Your task to perform on an android device: Do I have any events tomorrow? Image 0: 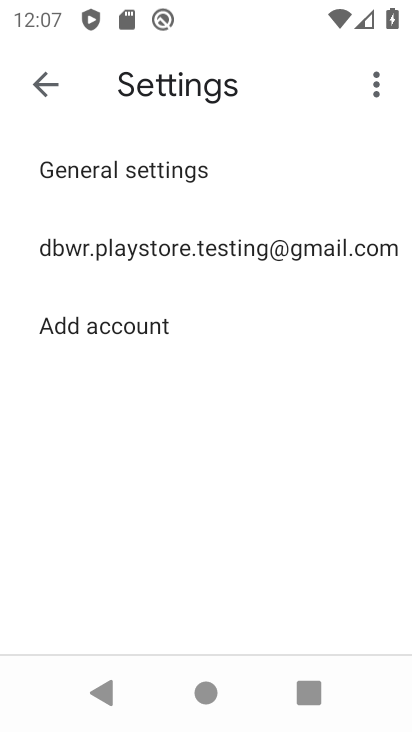
Step 0: press home button
Your task to perform on an android device: Do I have any events tomorrow? Image 1: 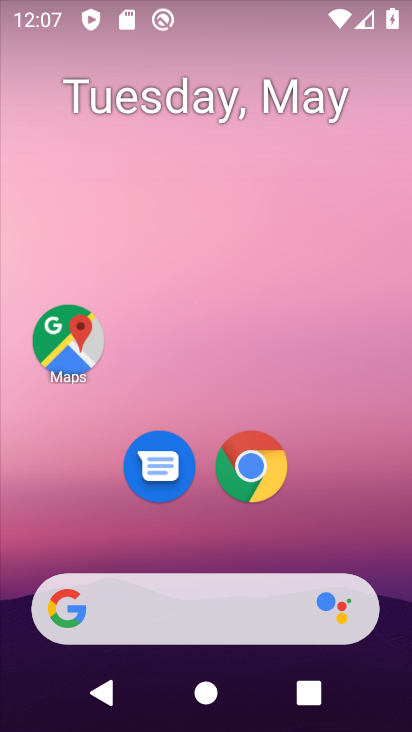
Step 1: drag from (368, 435) to (363, 265)
Your task to perform on an android device: Do I have any events tomorrow? Image 2: 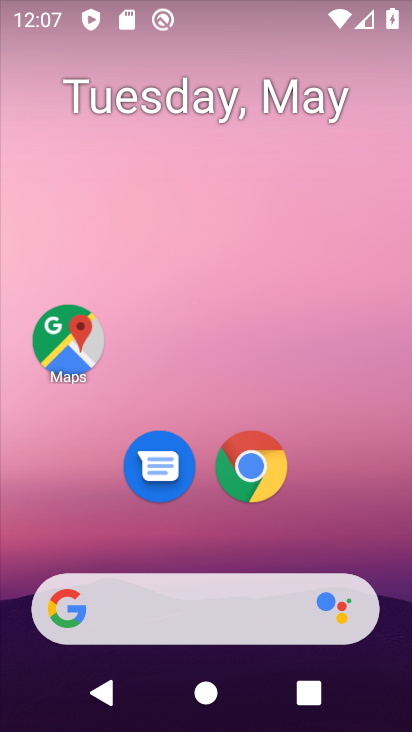
Step 2: drag from (396, 639) to (314, 265)
Your task to perform on an android device: Do I have any events tomorrow? Image 3: 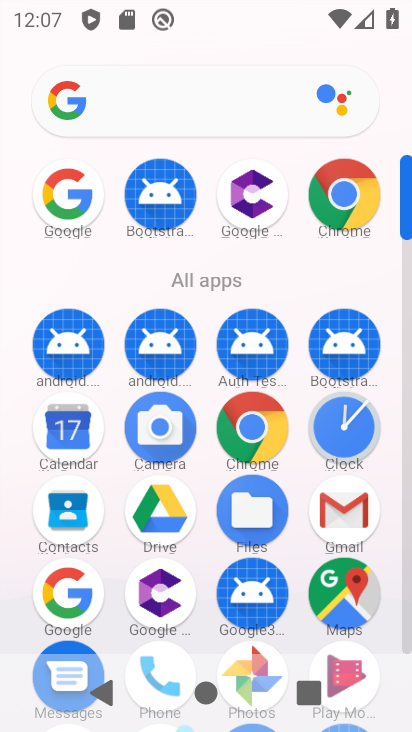
Step 3: click (68, 430)
Your task to perform on an android device: Do I have any events tomorrow? Image 4: 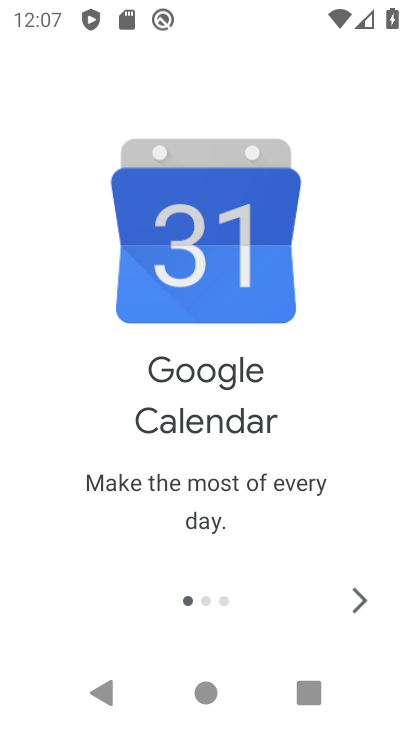
Step 4: click (362, 599)
Your task to perform on an android device: Do I have any events tomorrow? Image 5: 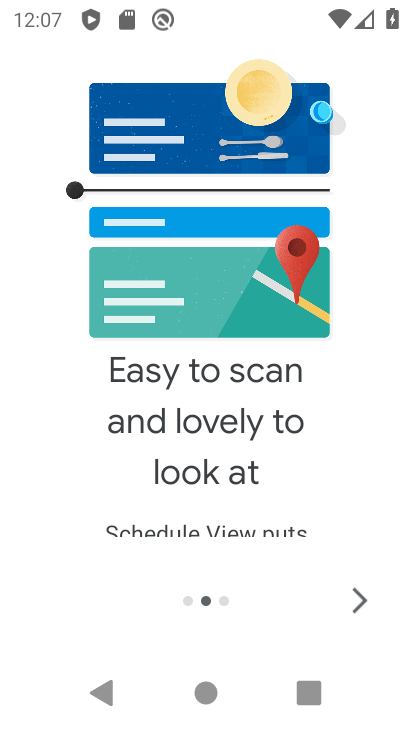
Step 5: click (362, 599)
Your task to perform on an android device: Do I have any events tomorrow? Image 6: 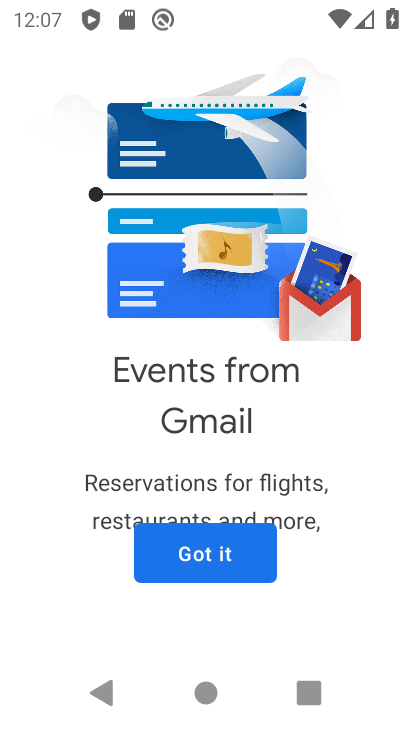
Step 6: click (142, 555)
Your task to perform on an android device: Do I have any events tomorrow? Image 7: 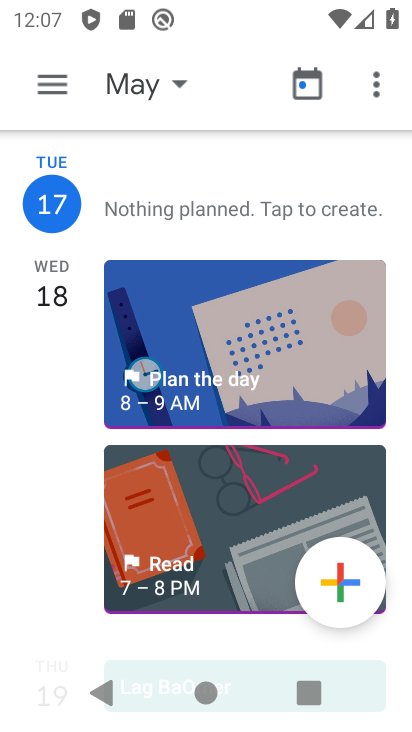
Step 7: click (46, 92)
Your task to perform on an android device: Do I have any events tomorrow? Image 8: 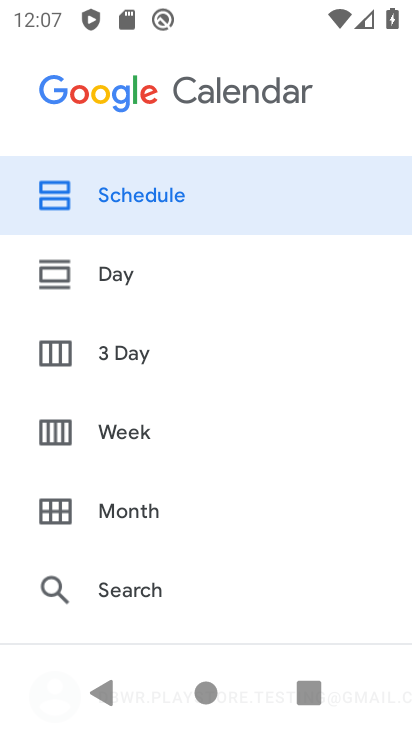
Step 8: drag from (237, 566) to (216, 308)
Your task to perform on an android device: Do I have any events tomorrow? Image 9: 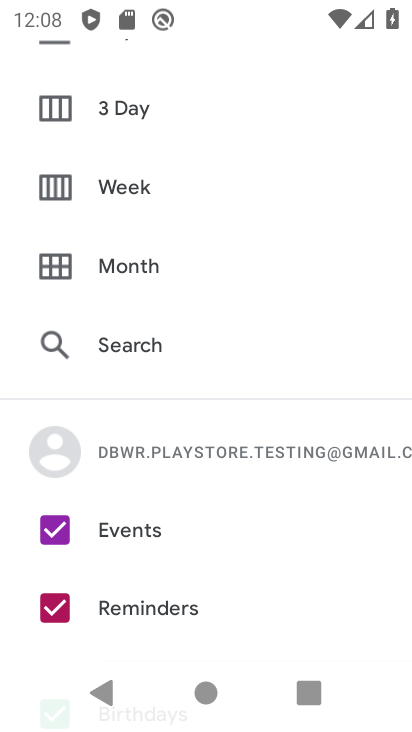
Step 9: click (57, 612)
Your task to perform on an android device: Do I have any events tomorrow? Image 10: 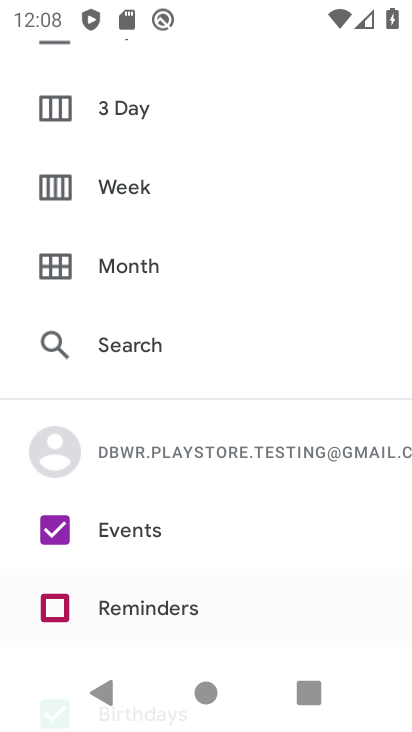
Step 10: drag from (261, 615) to (214, 397)
Your task to perform on an android device: Do I have any events tomorrow? Image 11: 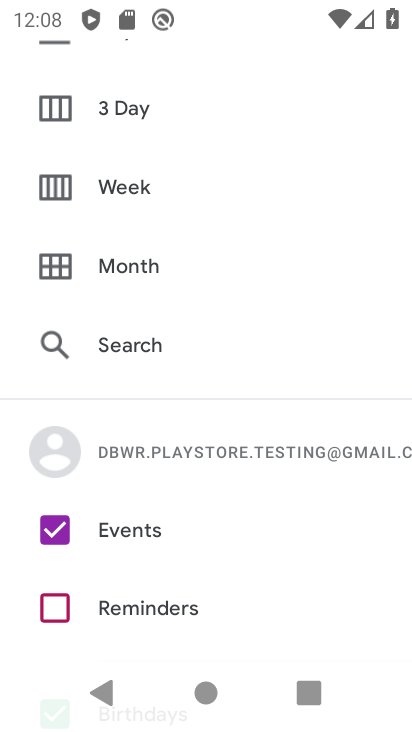
Step 11: drag from (261, 578) to (255, 340)
Your task to perform on an android device: Do I have any events tomorrow? Image 12: 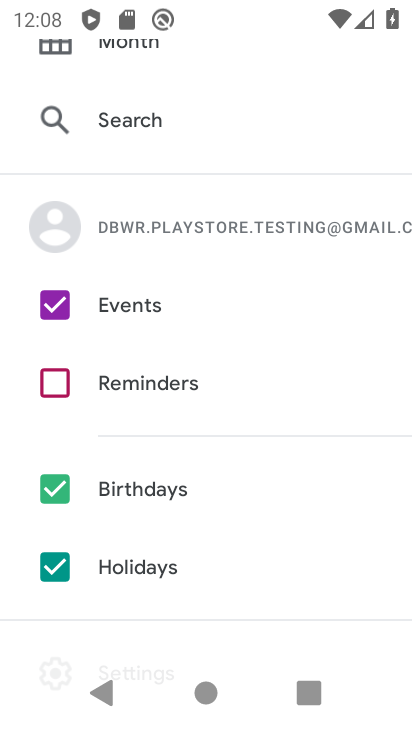
Step 12: click (50, 516)
Your task to perform on an android device: Do I have any events tomorrow? Image 13: 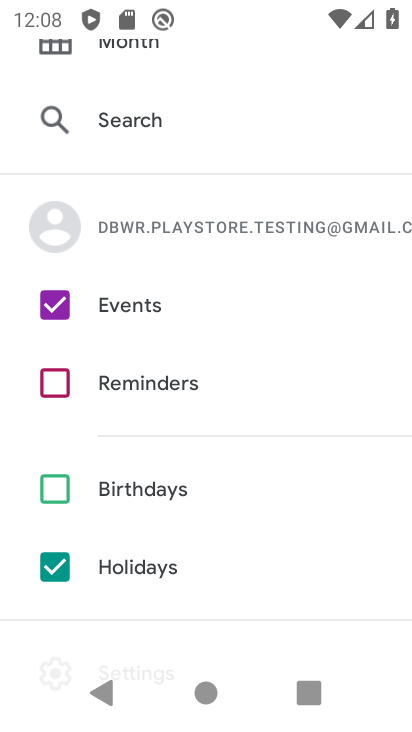
Step 13: click (53, 575)
Your task to perform on an android device: Do I have any events tomorrow? Image 14: 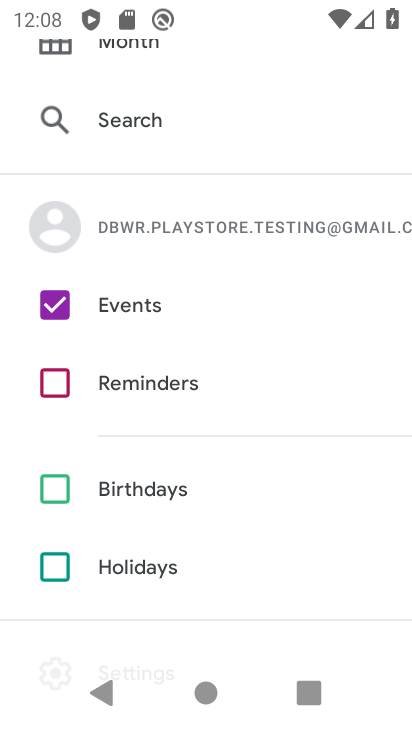
Step 14: task complete